Your task to perform on an android device: Go to Google Image 0: 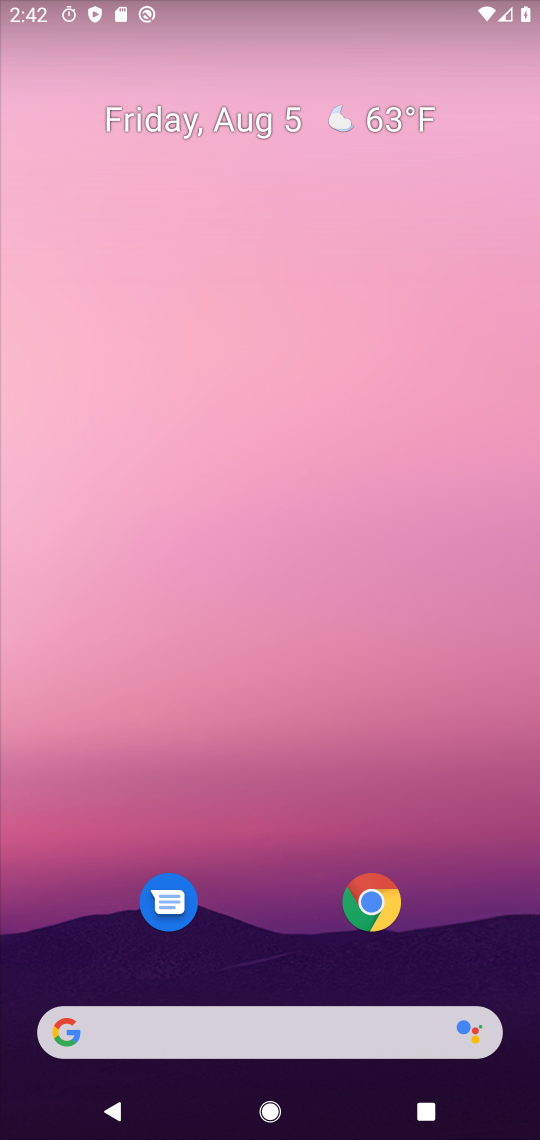
Step 0: drag from (389, 987) to (253, 249)
Your task to perform on an android device: Go to Google Image 1: 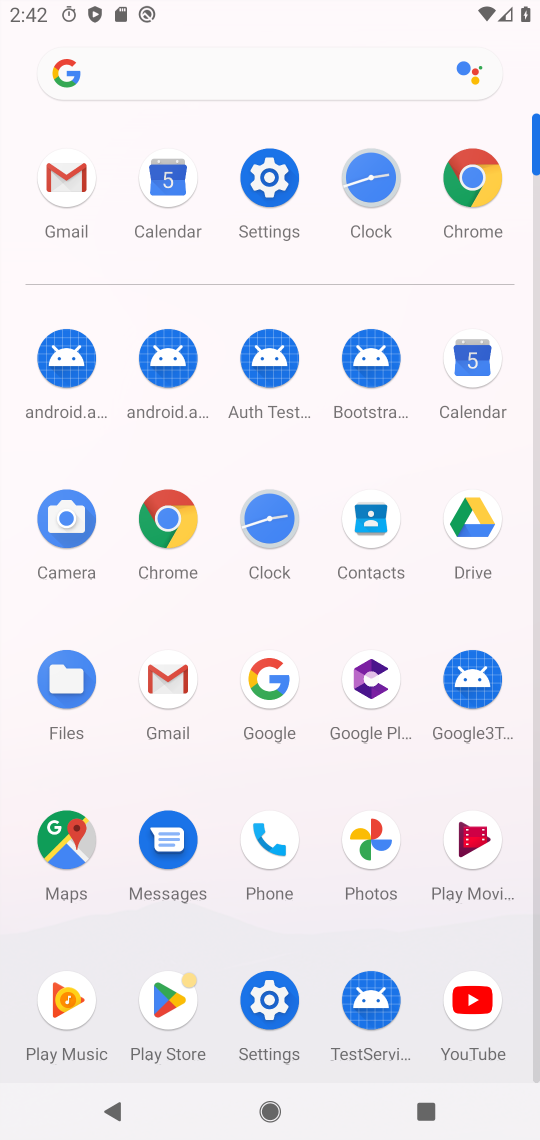
Step 1: click (81, 81)
Your task to perform on an android device: Go to Google Image 2: 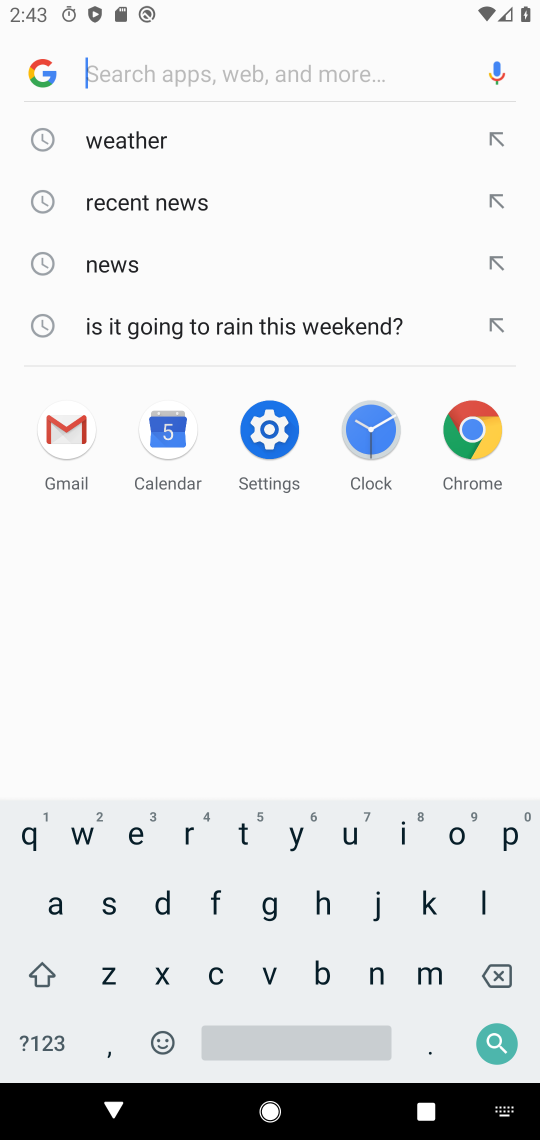
Step 2: click (37, 87)
Your task to perform on an android device: Go to Google Image 3: 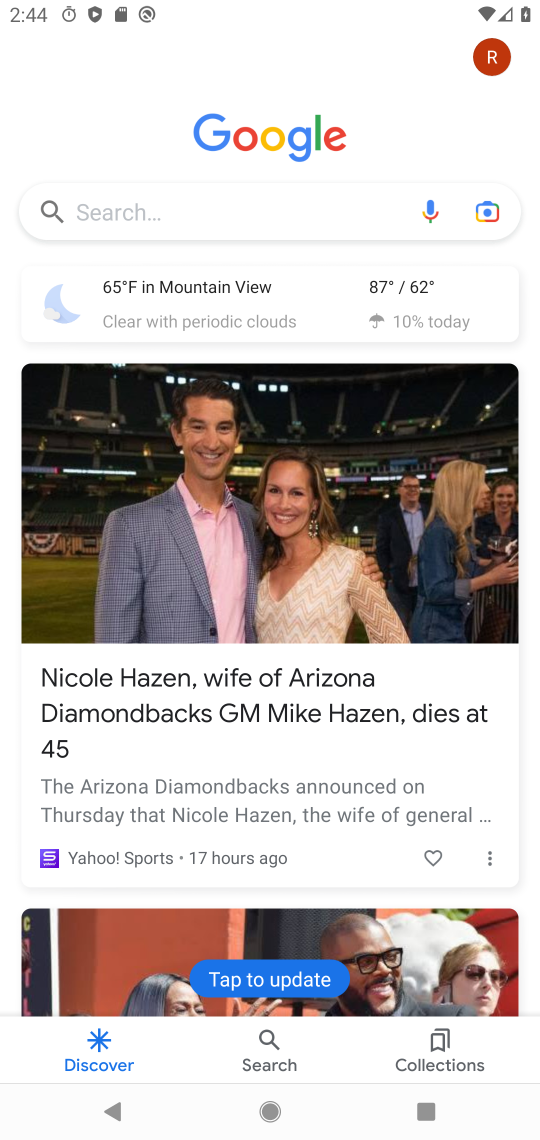
Step 3: task complete